Your task to perform on an android device: toggle priority inbox in the gmail app Image 0: 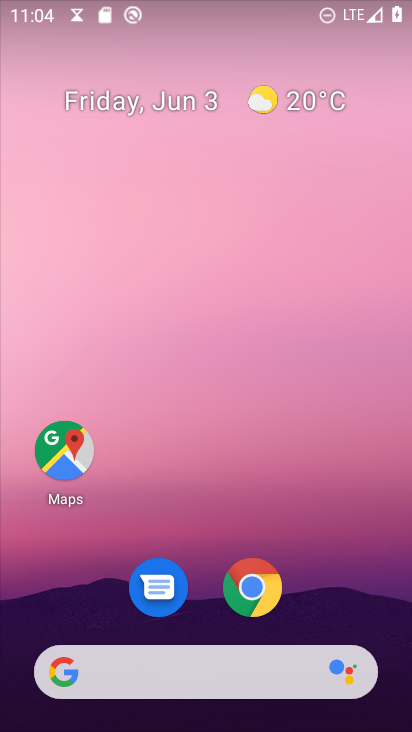
Step 0: drag from (253, 230) to (128, 37)
Your task to perform on an android device: toggle priority inbox in the gmail app Image 1: 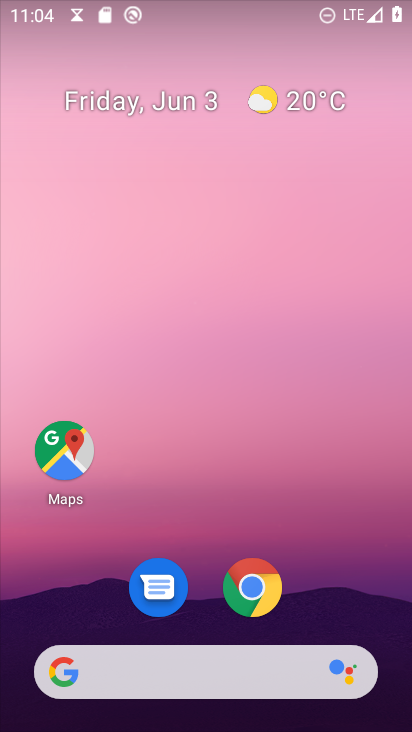
Step 1: drag from (320, 356) to (216, 67)
Your task to perform on an android device: toggle priority inbox in the gmail app Image 2: 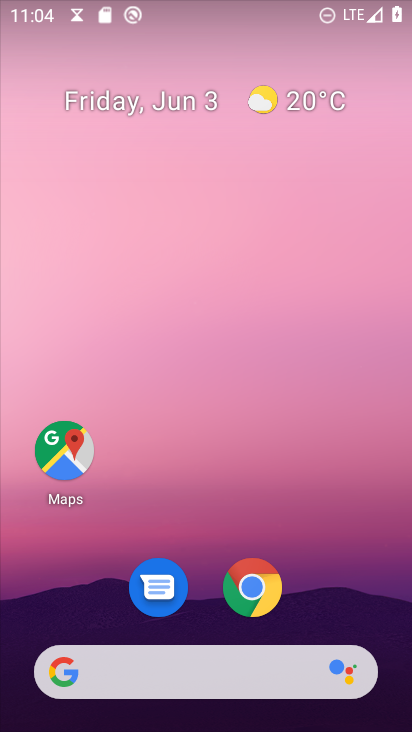
Step 2: drag from (256, 26) to (216, 2)
Your task to perform on an android device: toggle priority inbox in the gmail app Image 3: 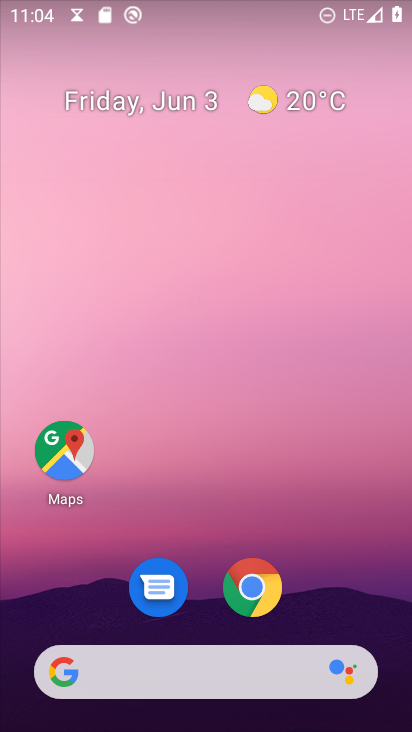
Step 3: drag from (326, 450) to (333, 3)
Your task to perform on an android device: toggle priority inbox in the gmail app Image 4: 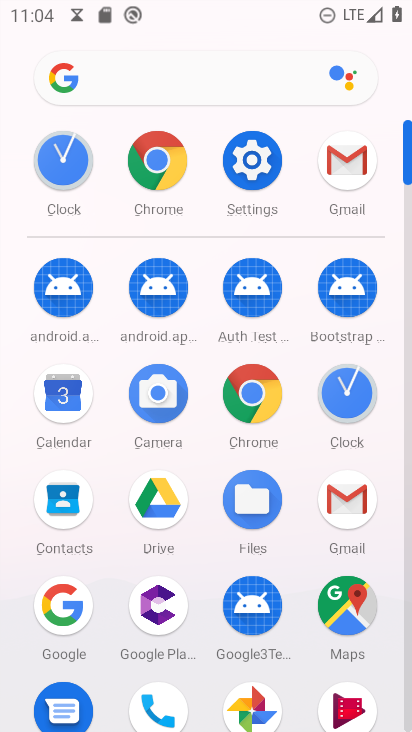
Step 4: click (342, 158)
Your task to perform on an android device: toggle priority inbox in the gmail app Image 5: 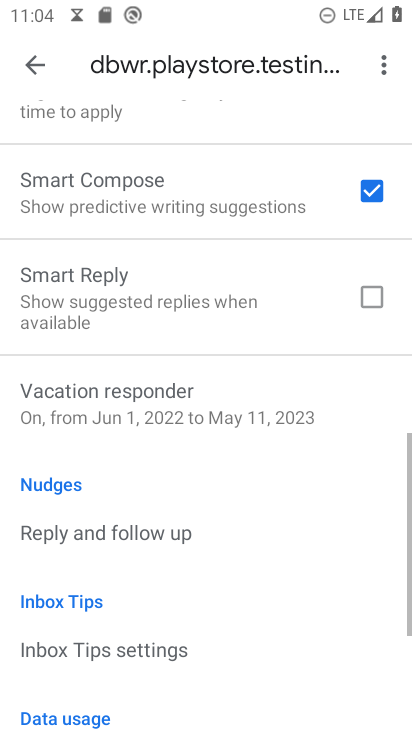
Step 5: drag from (187, 246) to (213, 718)
Your task to perform on an android device: toggle priority inbox in the gmail app Image 6: 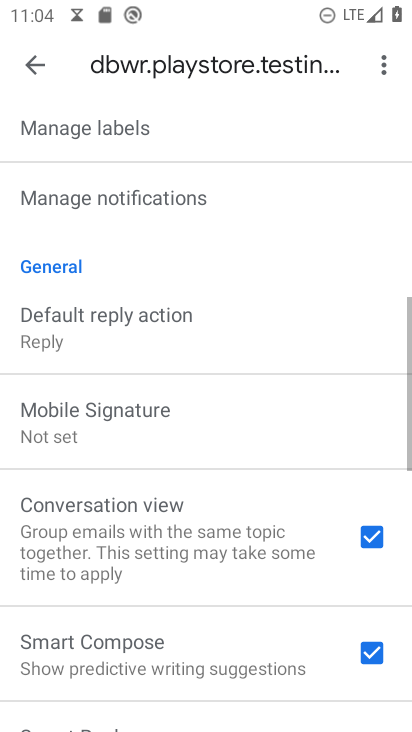
Step 6: drag from (192, 360) to (211, 695)
Your task to perform on an android device: toggle priority inbox in the gmail app Image 7: 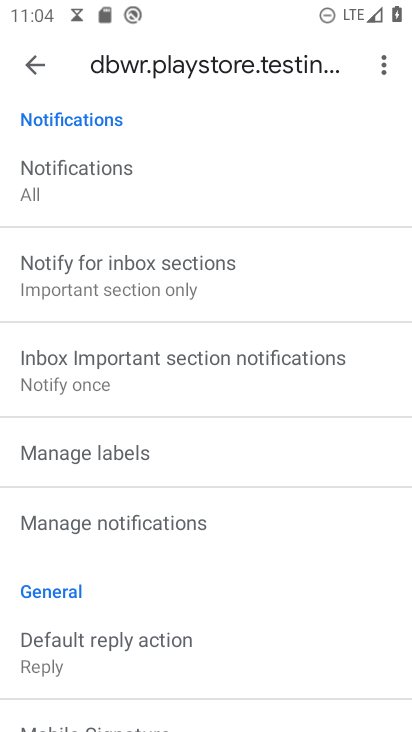
Step 7: drag from (165, 274) to (221, 725)
Your task to perform on an android device: toggle priority inbox in the gmail app Image 8: 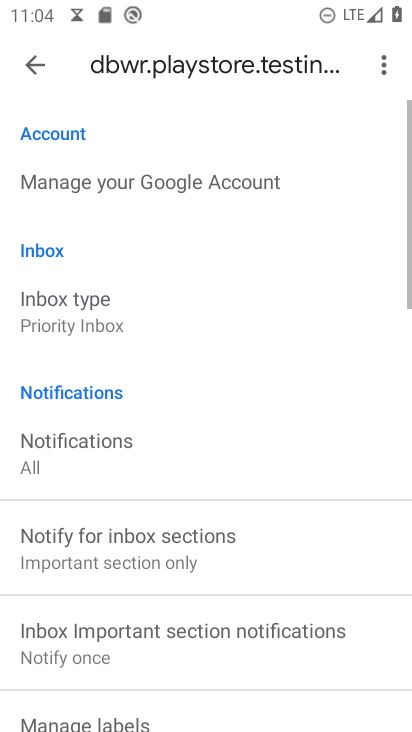
Step 8: click (109, 274)
Your task to perform on an android device: toggle priority inbox in the gmail app Image 9: 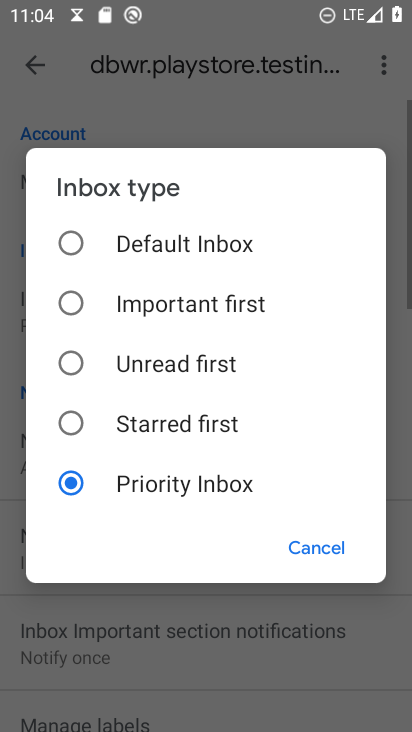
Step 9: click (180, 241)
Your task to perform on an android device: toggle priority inbox in the gmail app Image 10: 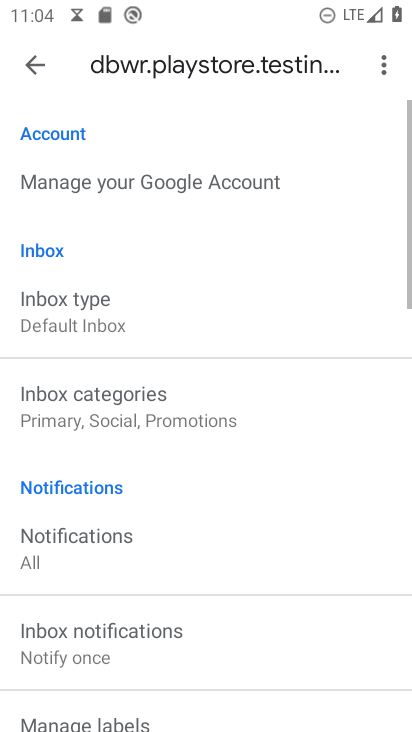
Step 10: task complete